Your task to perform on an android device: Open Google Chrome Image 0: 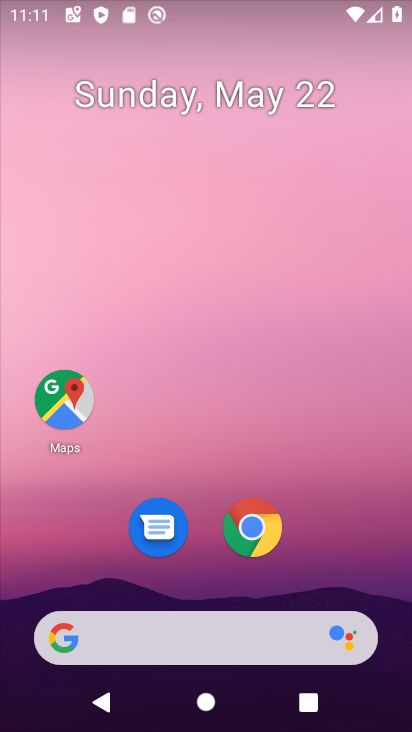
Step 0: click (256, 518)
Your task to perform on an android device: Open Google Chrome Image 1: 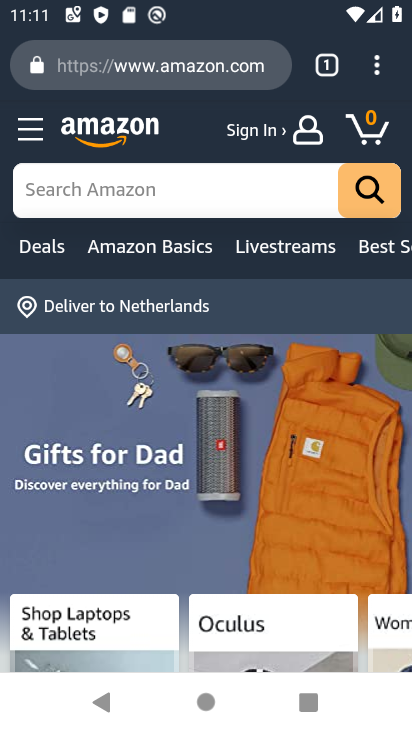
Step 1: click (241, 57)
Your task to perform on an android device: Open Google Chrome Image 2: 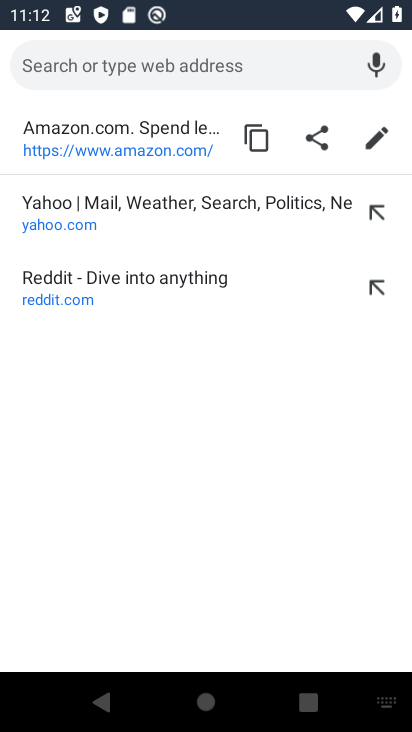
Step 2: type "google.com"
Your task to perform on an android device: Open Google Chrome Image 3: 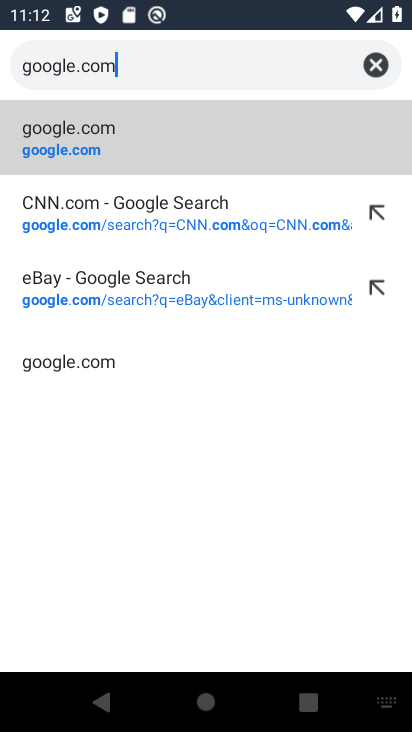
Step 3: click (187, 133)
Your task to perform on an android device: Open Google Chrome Image 4: 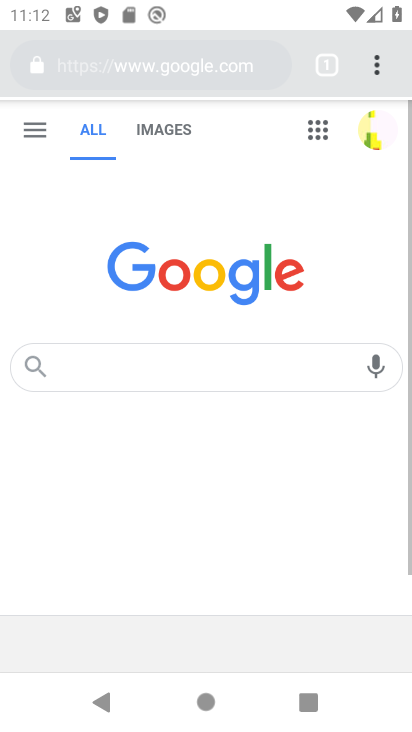
Step 4: task complete